Your task to perform on an android device: turn off airplane mode Image 0: 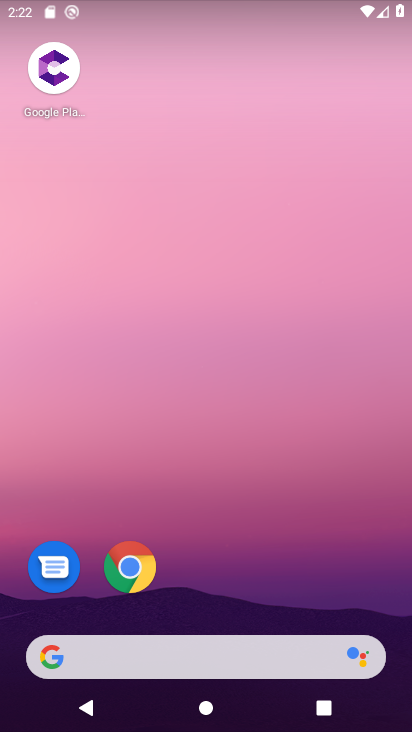
Step 0: drag from (381, 43) to (391, 714)
Your task to perform on an android device: turn off airplane mode Image 1: 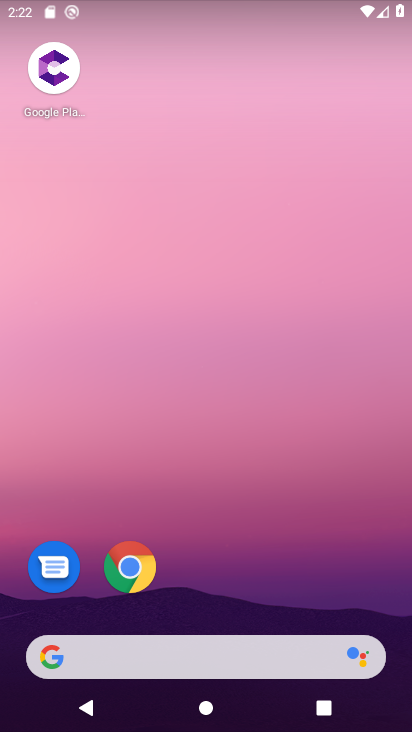
Step 1: task complete